Your task to perform on an android device: turn pop-ups on in chrome Image 0: 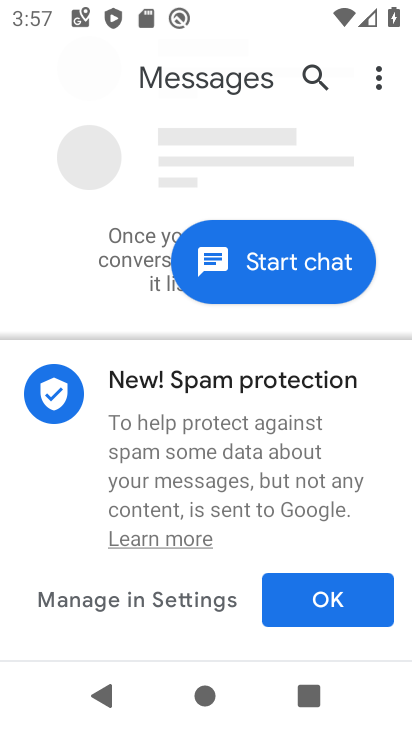
Step 0: press home button
Your task to perform on an android device: turn pop-ups on in chrome Image 1: 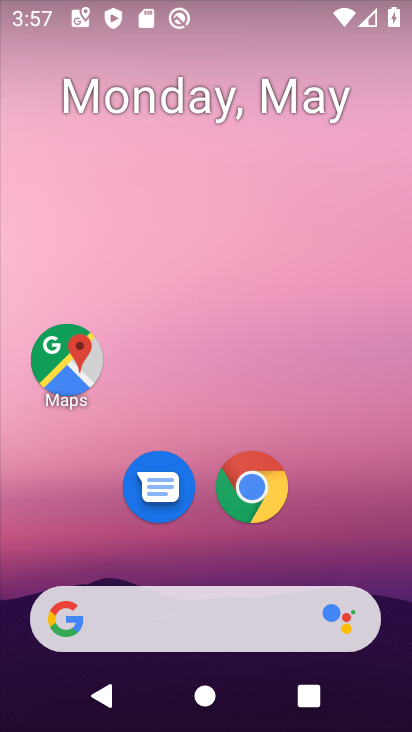
Step 1: click (252, 498)
Your task to perform on an android device: turn pop-ups on in chrome Image 2: 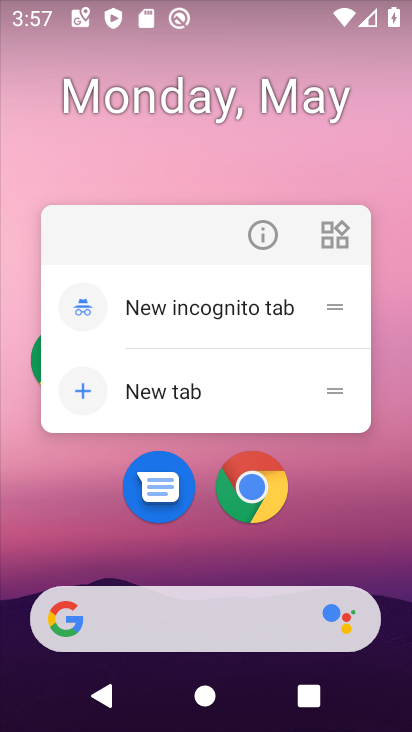
Step 2: click (254, 494)
Your task to perform on an android device: turn pop-ups on in chrome Image 3: 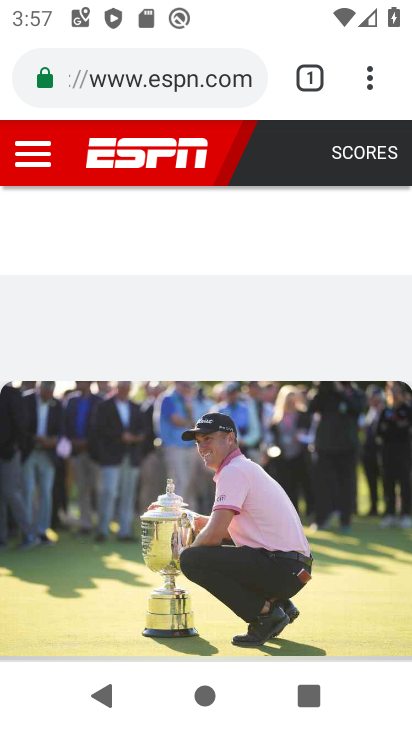
Step 3: click (374, 82)
Your task to perform on an android device: turn pop-ups on in chrome Image 4: 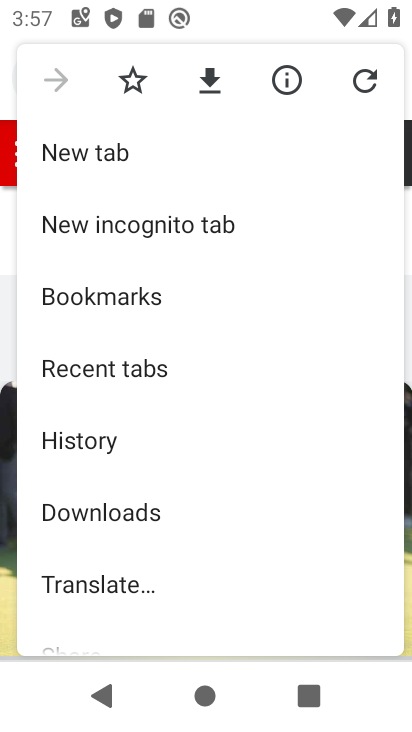
Step 4: drag from (151, 617) to (158, 244)
Your task to perform on an android device: turn pop-ups on in chrome Image 5: 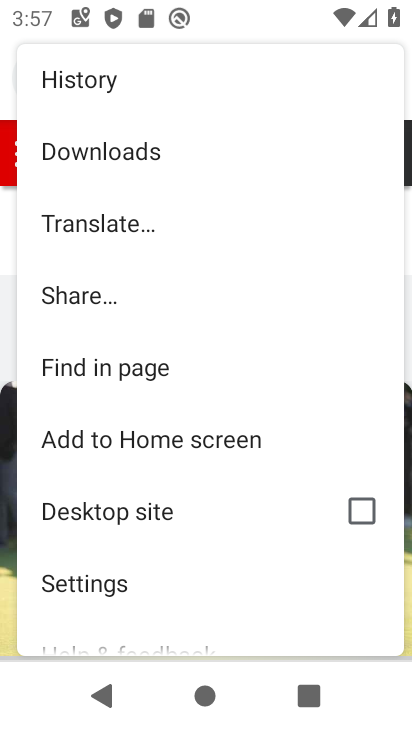
Step 5: click (102, 590)
Your task to perform on an android device: turn pop-ups on in chrome Image 6: 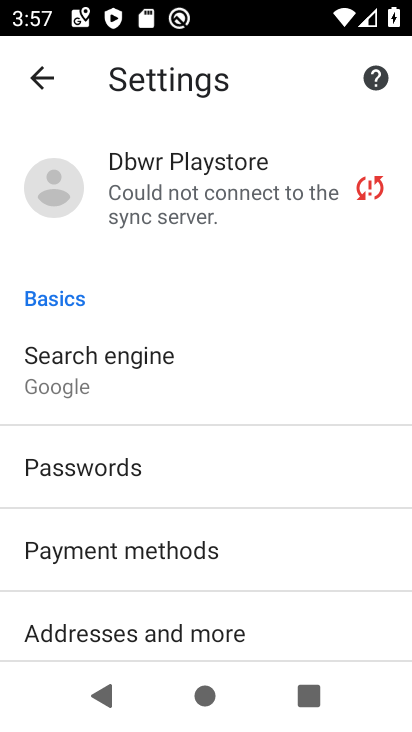
Step 6: drag from (157, 600) to (160, 277)
Your task to perform on an android device: turn pop-ups on in chrome Image 7: 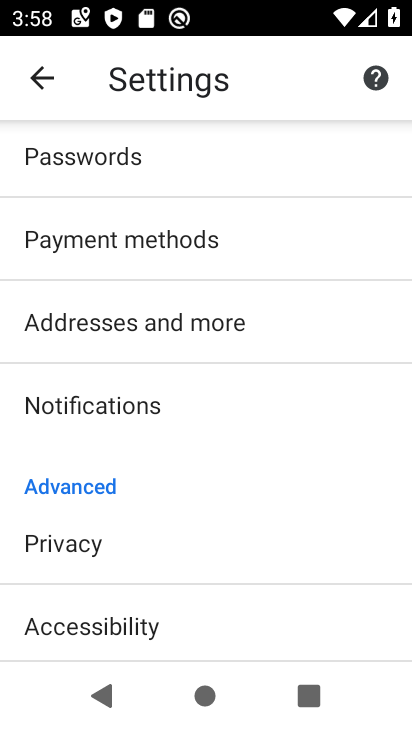
Step 7: drag from (106, 644) to (110, 446)
Your task to perform on an android device: turn pop-ups on in chrome Image 8: 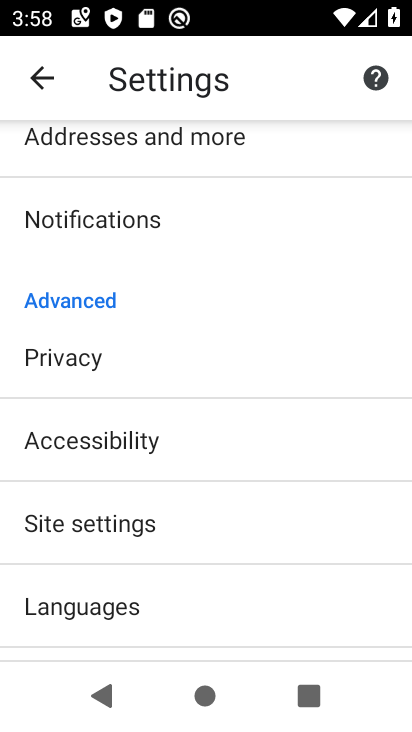
Step 8: click (111, 524)
Your task to perform on an android device: turn pop-ups on in chrome Image 9: 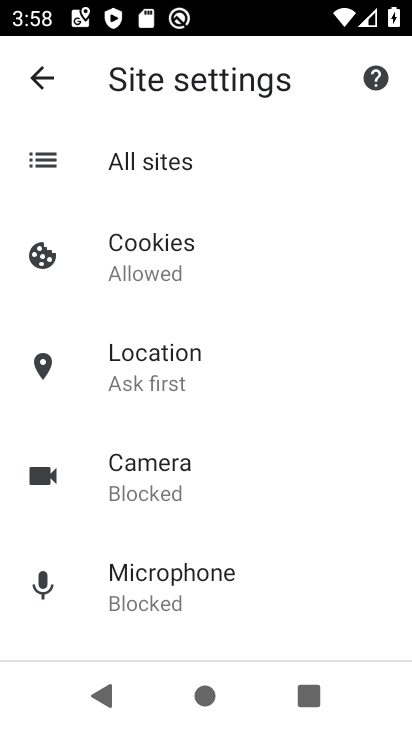
Step 9: drag from (201, 644) to (246, 281)
Your task to perform on an android device: turn pop-ups on in chrome Image 10: 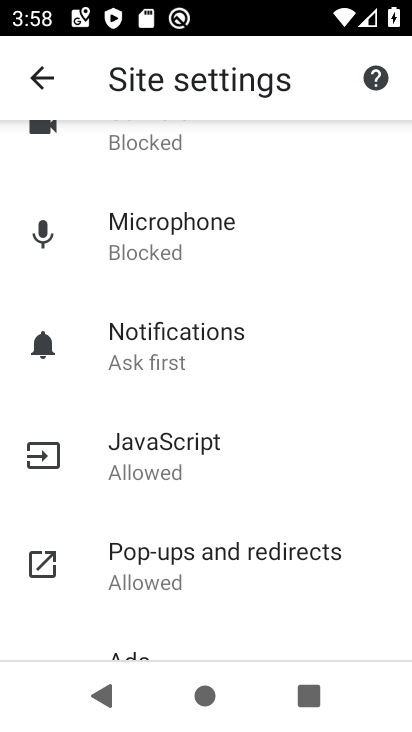
Step 10: click (185, 563)
Your task to perform on an android device: turn pop-ups on in chrome Image 11: 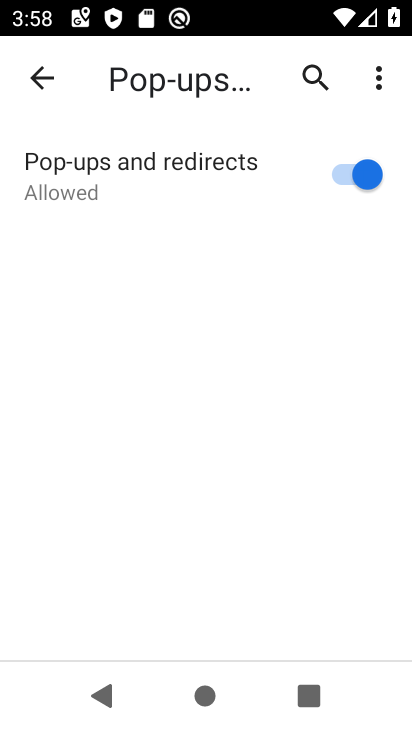
Step 11: task complete